Your task to perform on an android device: Is it going to rain tomorrow? Image 0: 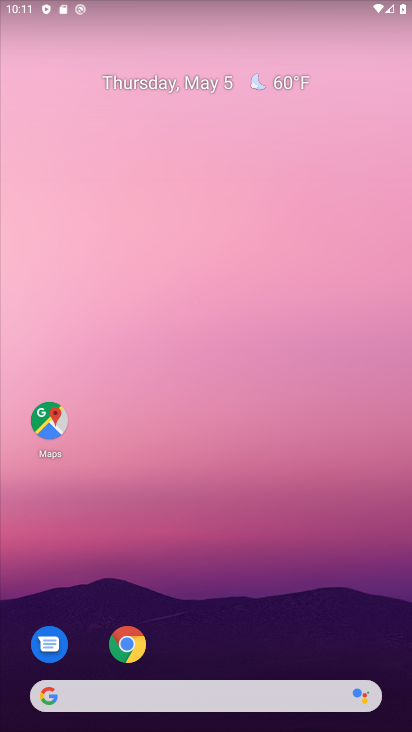
Step 0: drag from (354, 609) to (356, 121)
Your task to perform on an android device: Is it going to rain tomorrow? Image 1: 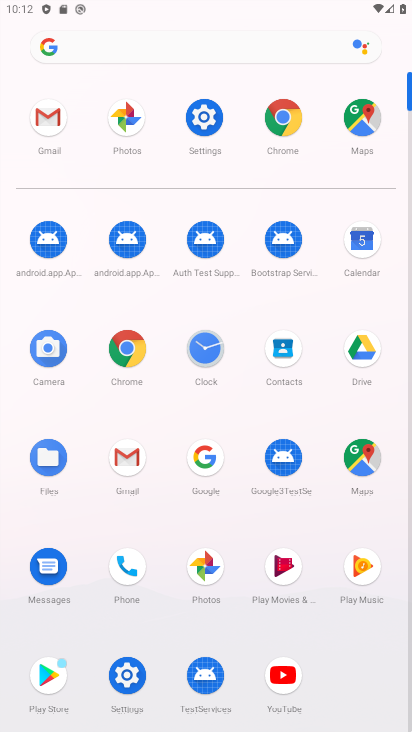
Step 1: click (122, 361)
Your task to perform on an android device: Is it going to rain tomorrow? Image 2: 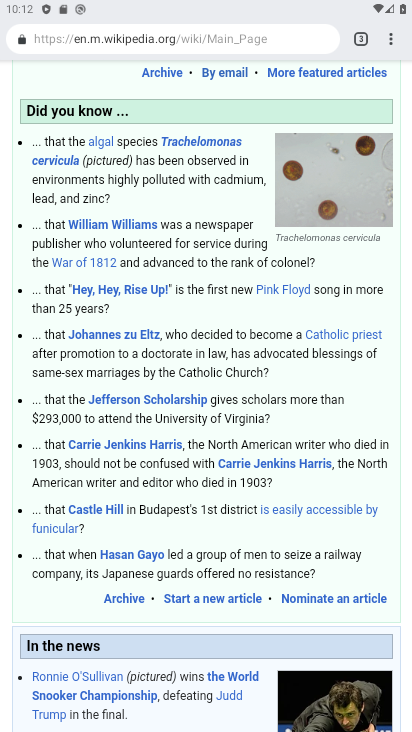
Step 2: click (206, 33)
Your task to perform on an android device: Is it going to rain tomorrow? Image 3: 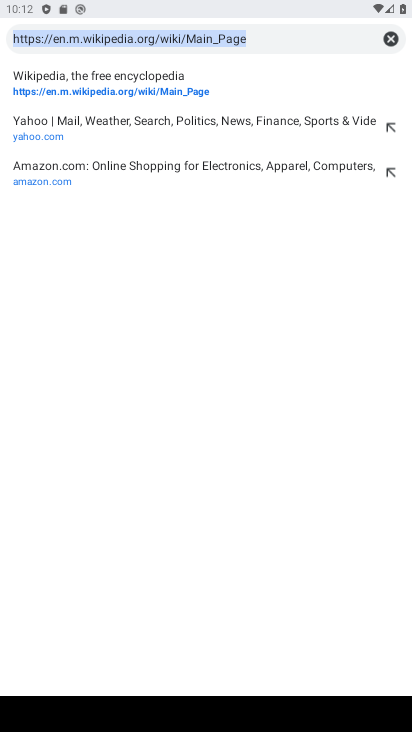
Step 3: click (394, 36)
Your task to perform on an android device: Is it going to rain tomorrow? Image 4: 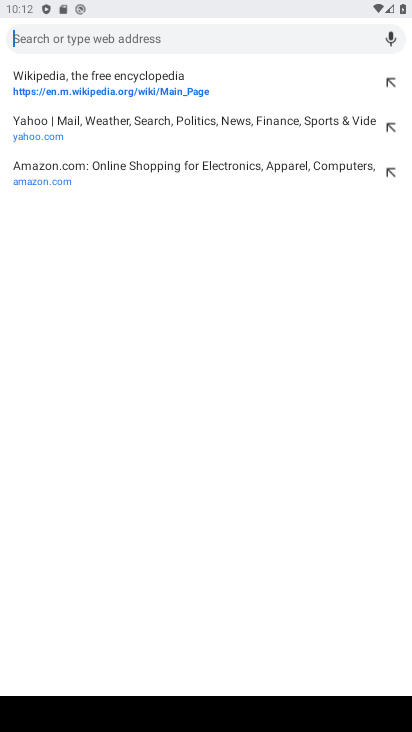
Step 4: type "is it going to rain tomorrow"
Your task to perform on an android device: Is it going to rain tomorrow? Image 5: 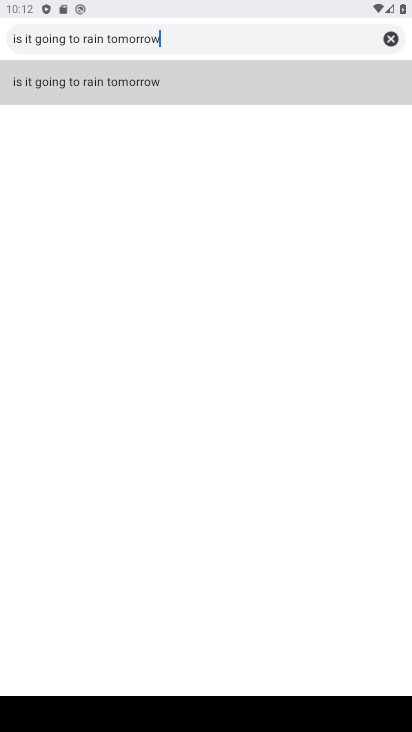
Step 5: click (116, 84)
Your task to perform on an android device: Is it going to rain tomorrow? Image 6: 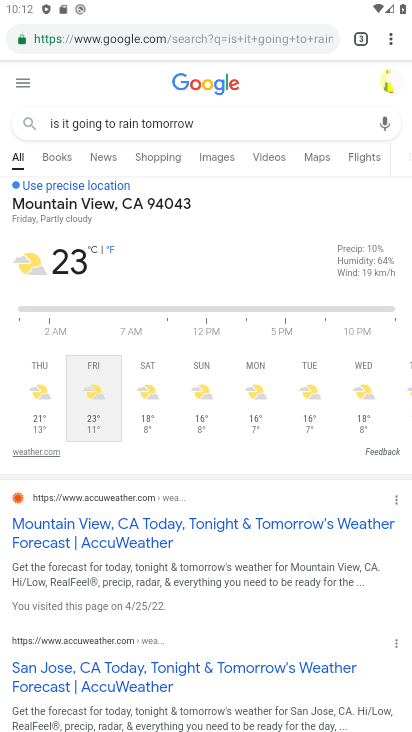
Step 6: task complete